Your task to perform on an android device: Search for "razer kraken" on bestbuy, select the first entry, add it to the cart, then select checkout. Image 0: 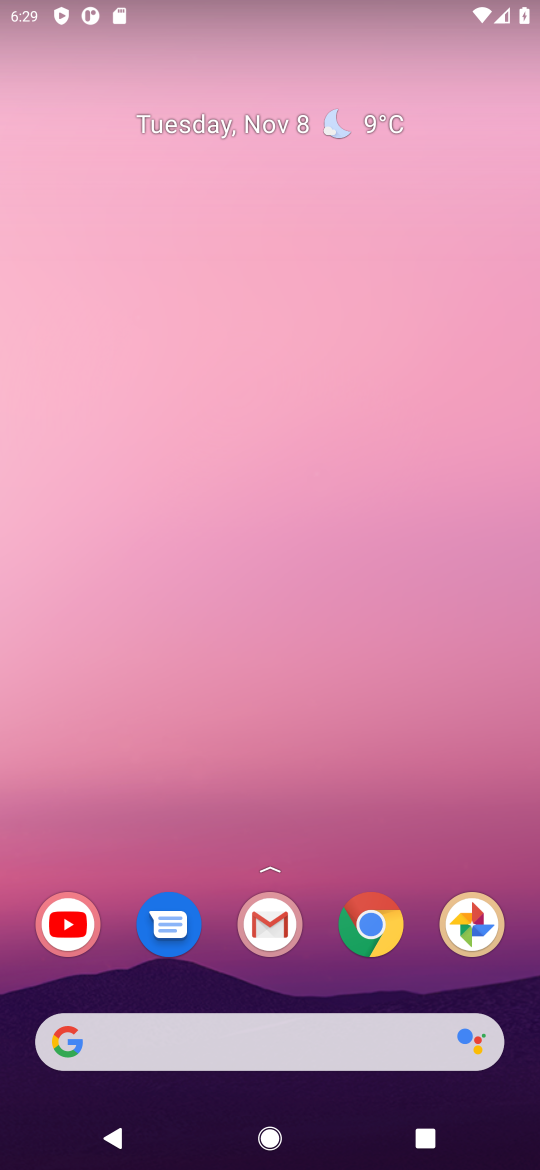
Step 0: click (263, 1026)
Your task to perform on an android device: Search for "razer kraken" on bestbuy, select the first entry, add it to the cart, then select checkout. Image 1: 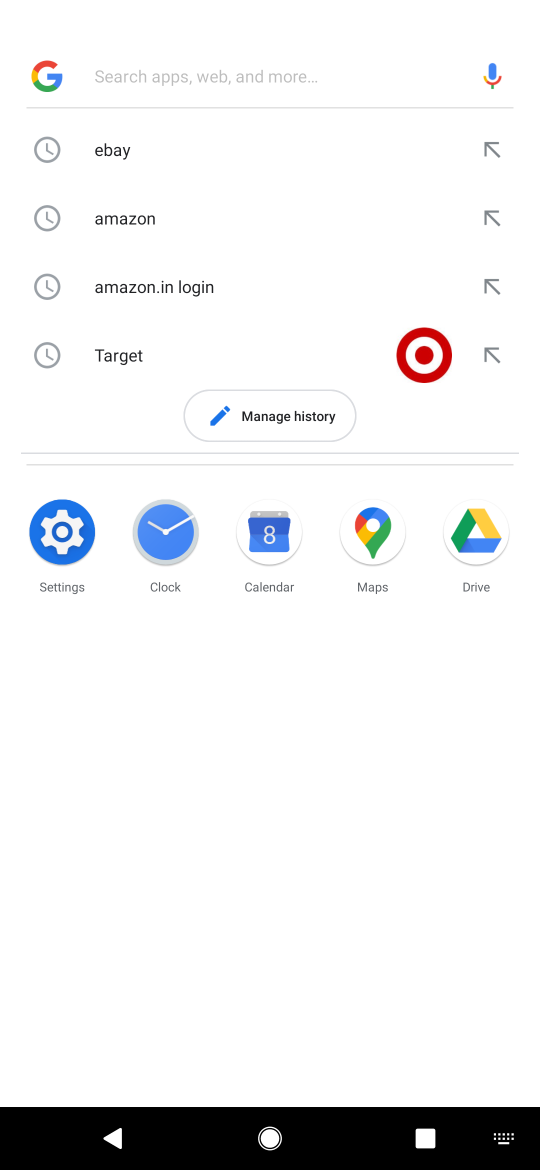
Step 1: type "bestbuy"
Your task to perform on an android device: Search for "razer kraken" on bestbuy, select the first entry, add it to the cart, then select checkout. Image 2: 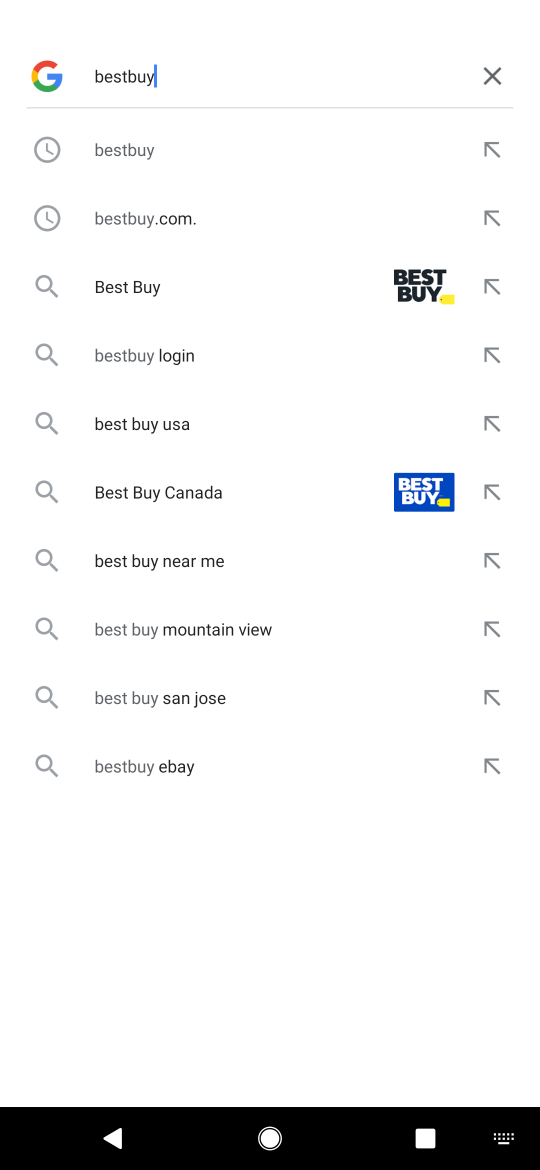
Step 2: click (181, 282)
Your task to perform on an android device: Search for "razer kraken" on bestbuy, select the first entry, add it to the cart, then select checkout. Image 3: 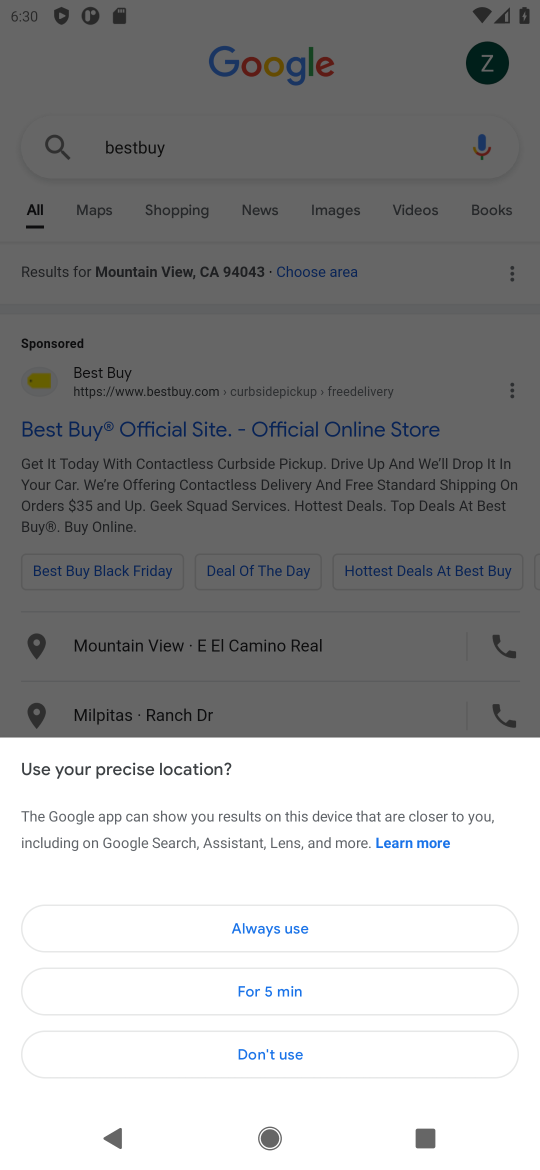
Step 3: click (78, 382)
Your task to perform on an android device: Search for "razer kraken" on bestbuy, select the first entry, add it to the cart, then select checkout. Image 4: 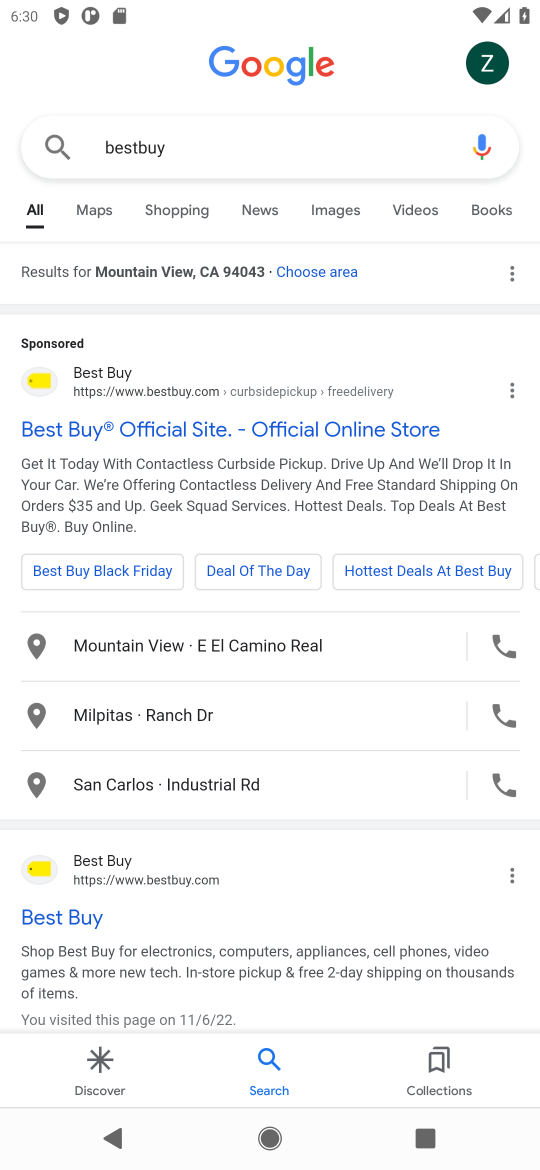
Step 4: click (119, 421)
Your task to perform on an android device: Search for "razer kraken" on bestbuy, select the first entry, add it to the cart, then select checkout. Image 5: 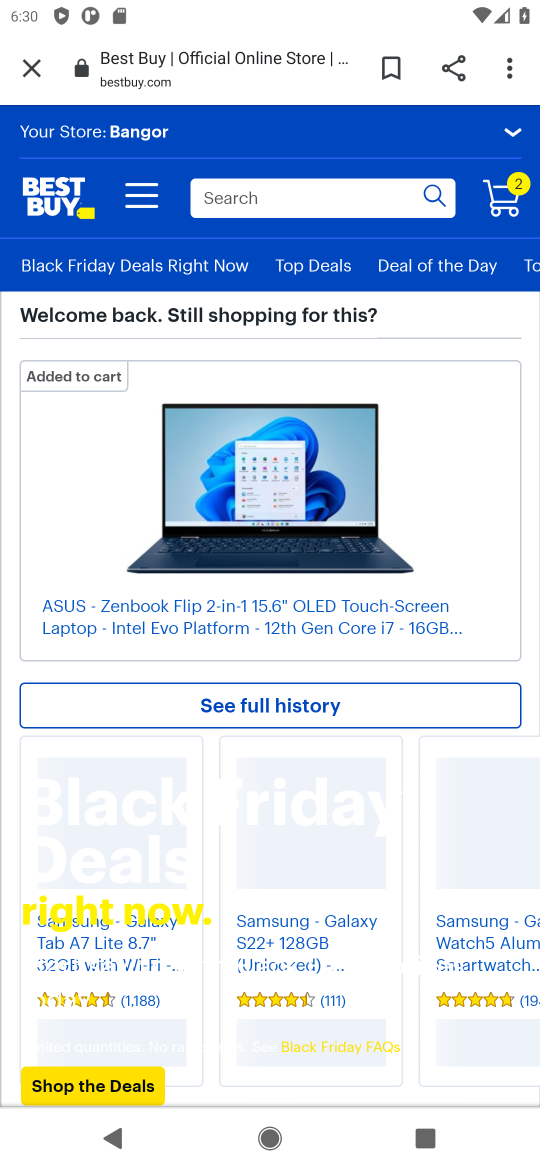
Step 5: click (240, 186)
Your task to perform on an android device: Search for "razer kraken" on bestbuy, select the first entry, add it to the cart, then select checkout. Image 6: 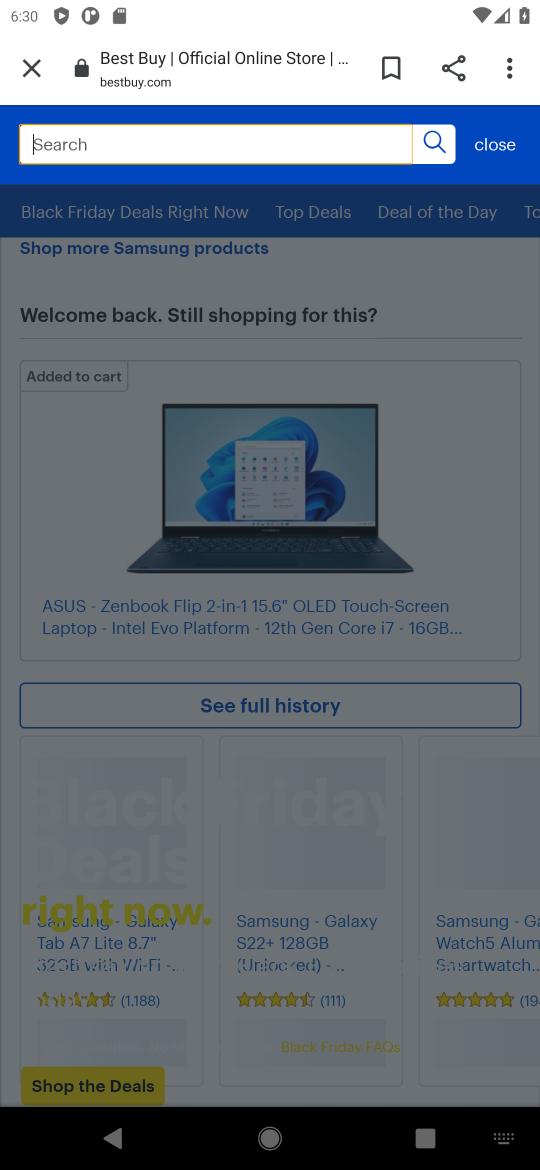
Step 6: type "razer kraken"
Your task to perform on an android device: Search for "razer kraken" on bestbuy, select the first entry, add it to the cart, then select checkout. Image 7: 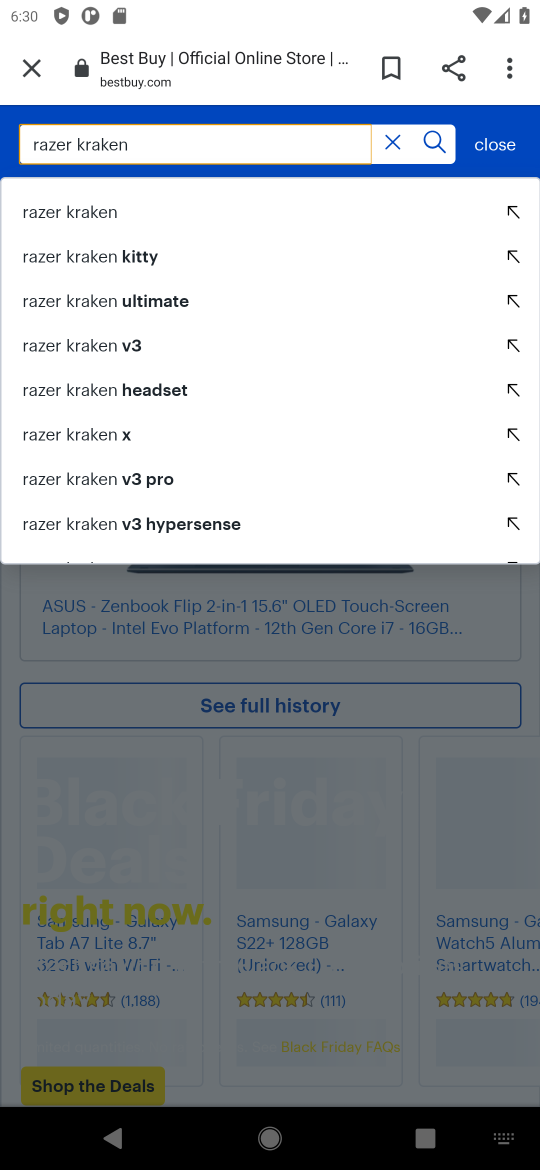
Step 7: click (89, 204)
Your task to perform on an android device: Search for "razer kraken" on bestbuy, select the first entry, add it to the cart, then select checkout. Image 8: 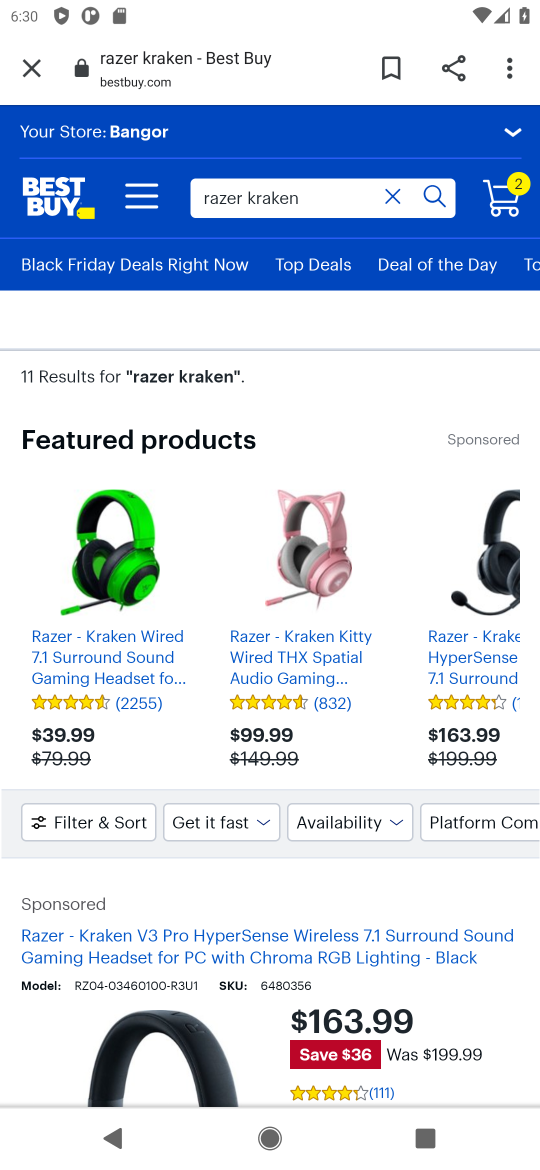
Step 8: drag from (349, 1009) to (411, 630)
Your task to perform on an android device: Search for "razer kraken" on bestbuy, select the first entry, add it to the cart, then select checkout. Image 9: 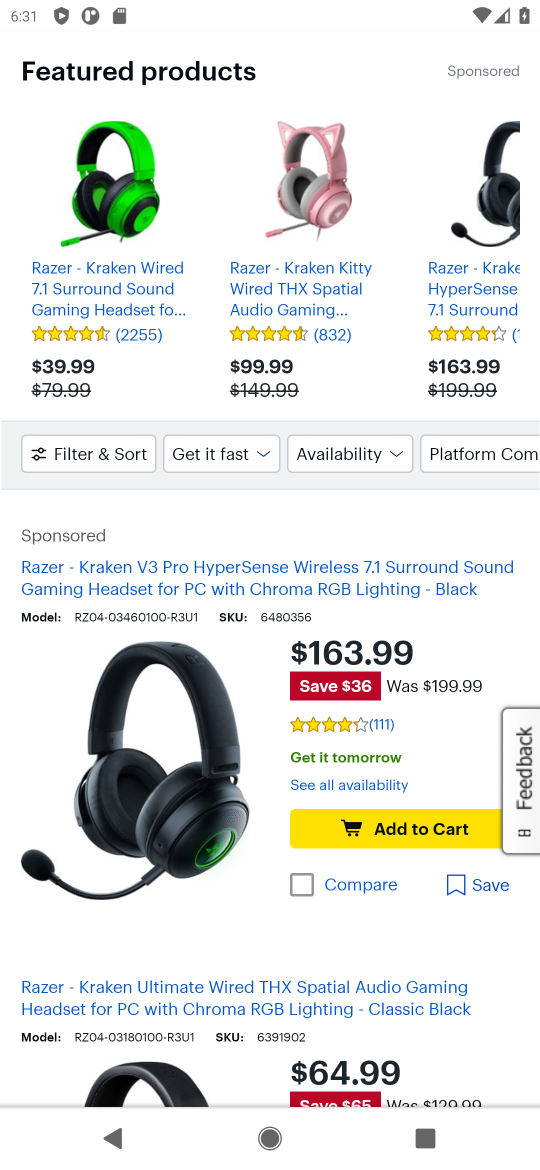
Step 9: click (408, 827)
Your task to perform on an android device: Search for "razer kraken" on bestbuy, select the first entry, add it to the cart, then select checkout. Image 10: 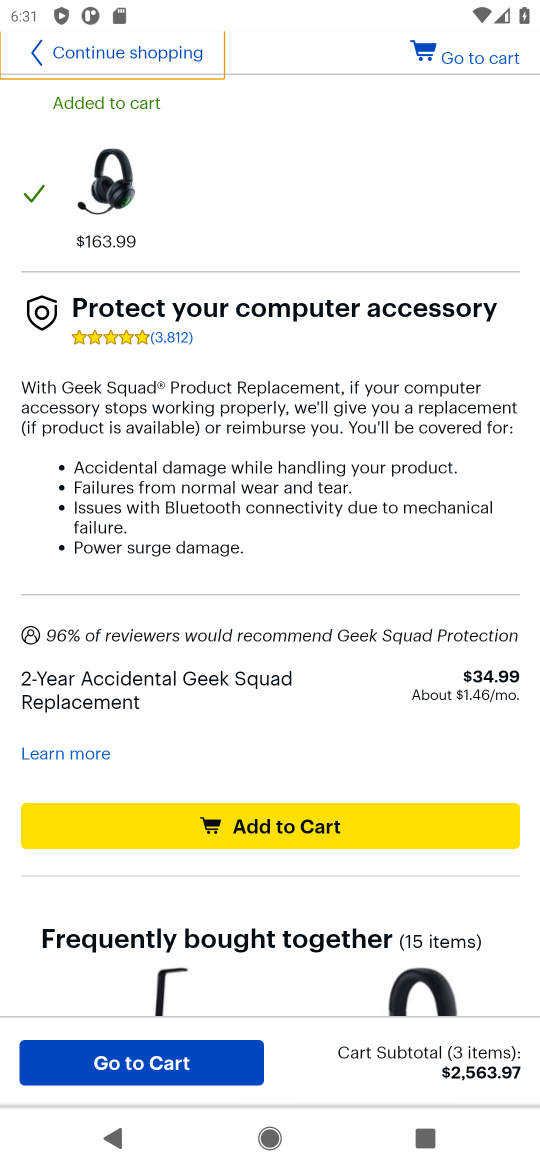
Step 10: click (136, 1065)
Your task to perform on an android device: Search for "razer kraken" on bestbuy, select the first entry, add it to the cart, then select checkout. Image 11: 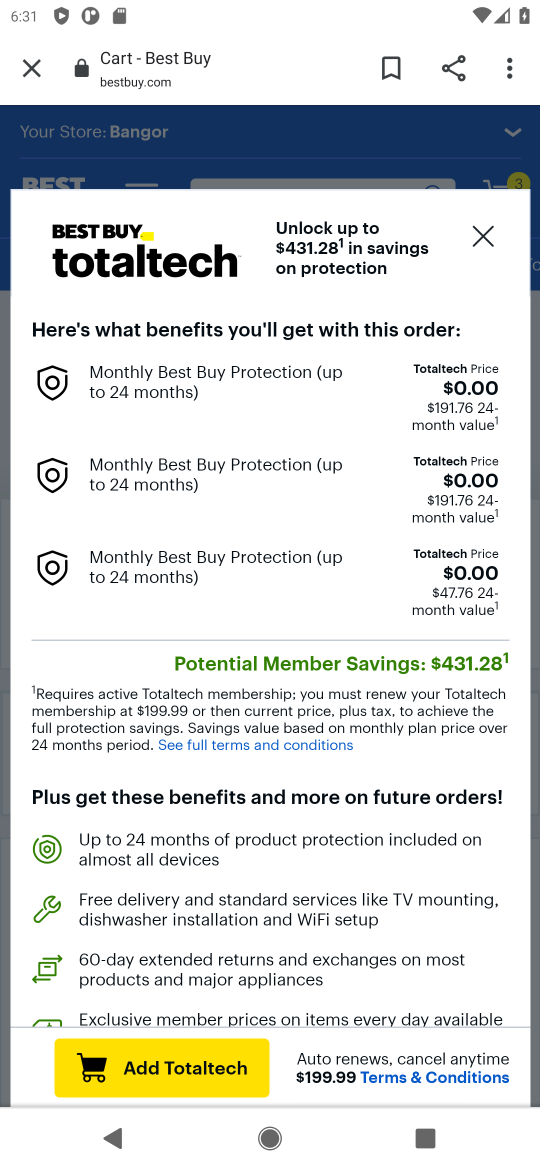
Step 11: click (501, 214)
Your task to perform on an android device: Search for "razer kraken" on bestbuy, select the first entry, add it to the cart, then select checkout. Image 12: 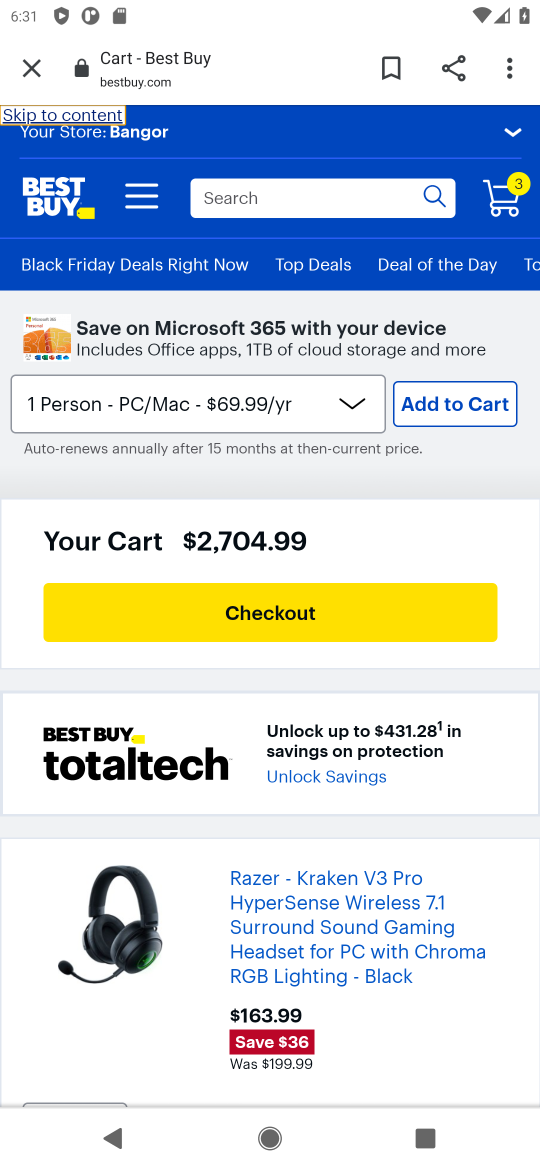
Step 12: click (480, 244)
Your task to perform on an android device: Search for "razer kraken" on bestbuy, select the first entry, add it to the cart, then select checkout. Image 13: 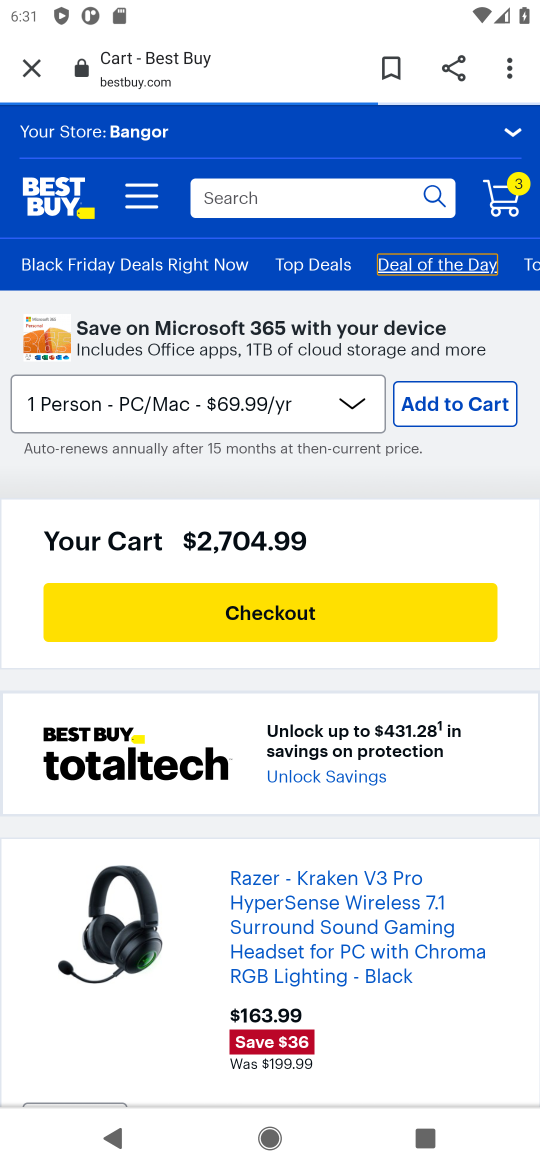
Step 13: click (503, 209)
Your task to perform on an android device: Search for "razer kraken" on bestbuy, select the first entry, add it to the cart, then select checkout. Image 14: 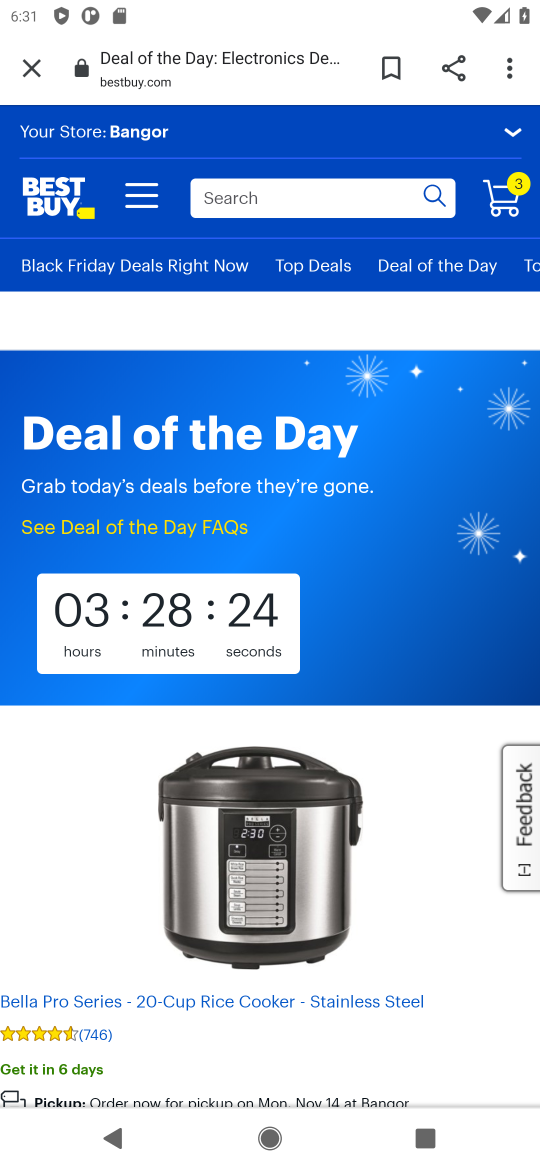
Step 14: click (495, 201)
Your task to perform on an android device: Search for "razer kraken" on bestbuy, select the first entry, add it to the cart, then select checkout. Image 15: 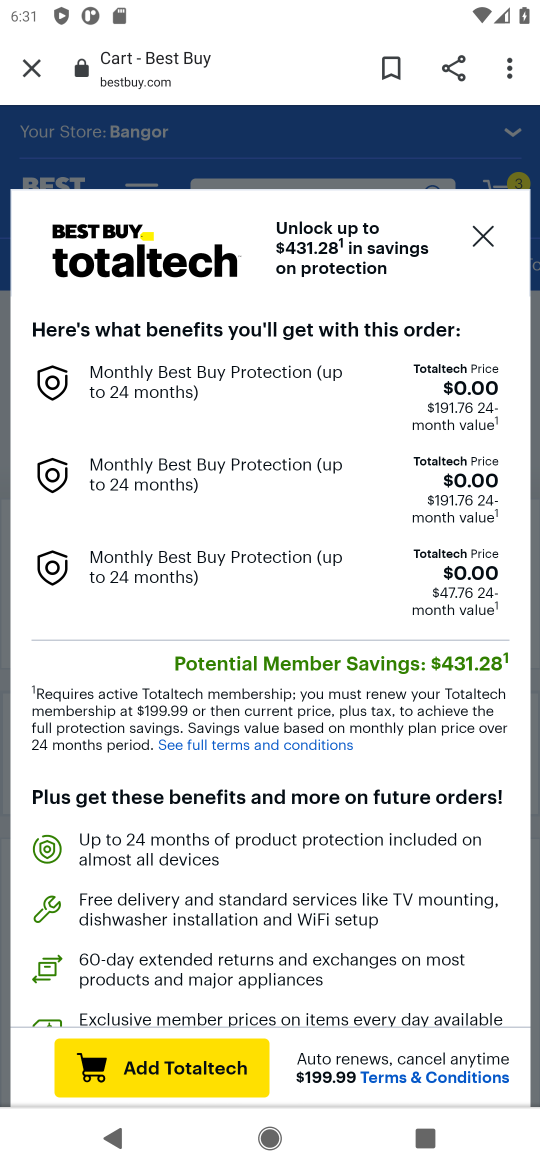
Step 15: click (482, 231)
Your task to perform on an android device: Search for "razer kraken" on bestbuy, select the first entry, add it to the cart, then select checkout. Image 16: 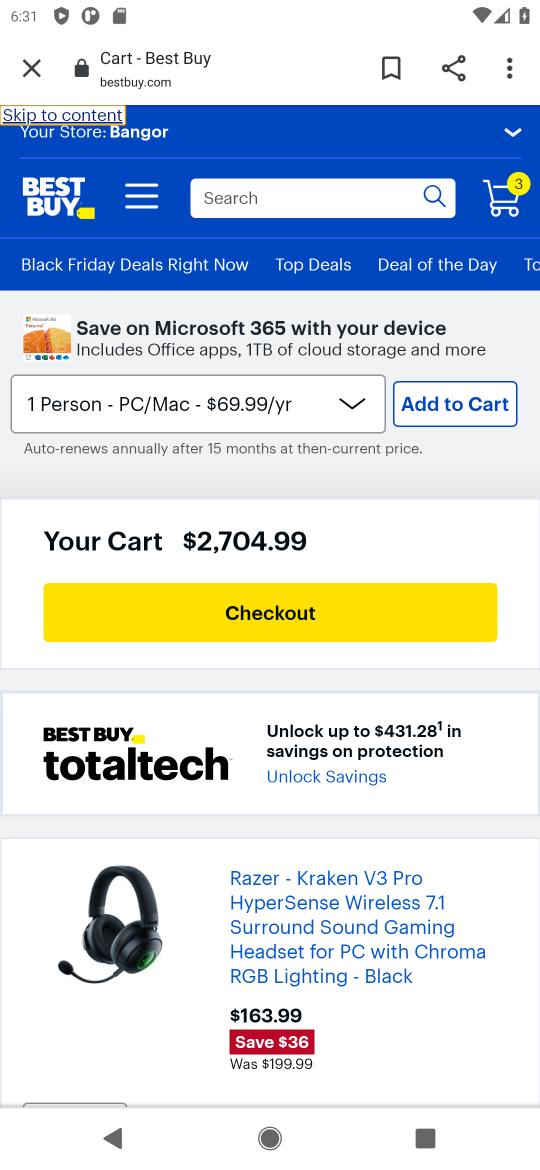
Step 16: click (259, 623)
Your task to perform on an android device: Search for "razer kraken" on bestbuy, select the first entry, add it to the cart, then select checkout. Image 17: 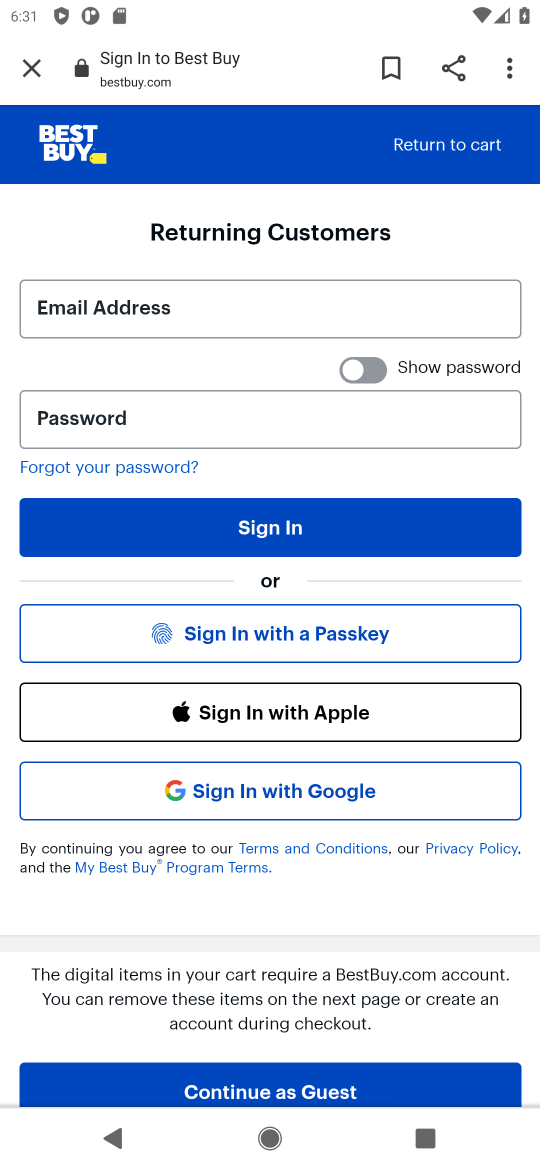
Step 17: task complete